Your task to perform on an android device: Go to calendar. Show me events next week Image 0: 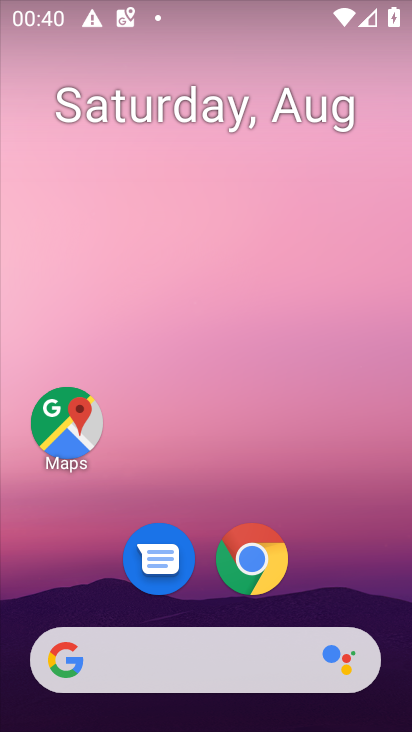
Step 0: drag from (371, 590) to (251, 105)
Your task to perform on an android device: Go to calendar. Show me events next week Image 1: 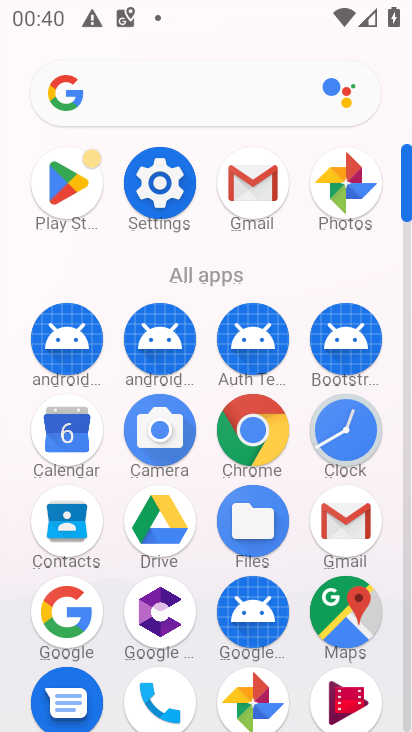
Step 1: click (76, 432)
Your task to perform on an android device: Go to calendar. Show me events next week Image 2: 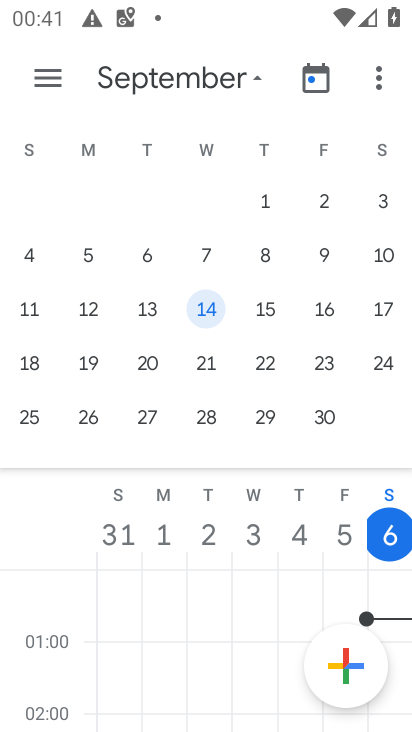
Step 2: click (51, 73)
Your task to perform on an android device: Go to calendar. Show me events next week Image 3: 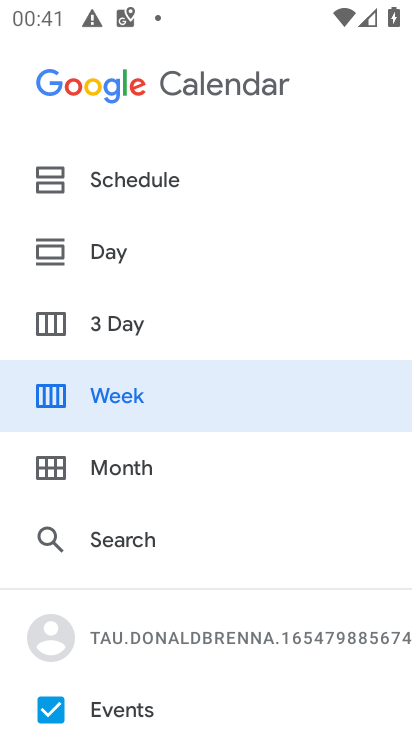
Step 3: click (150, 410)
Your task to perform on an android device: Go to calendar. Show me events next week Image 4: 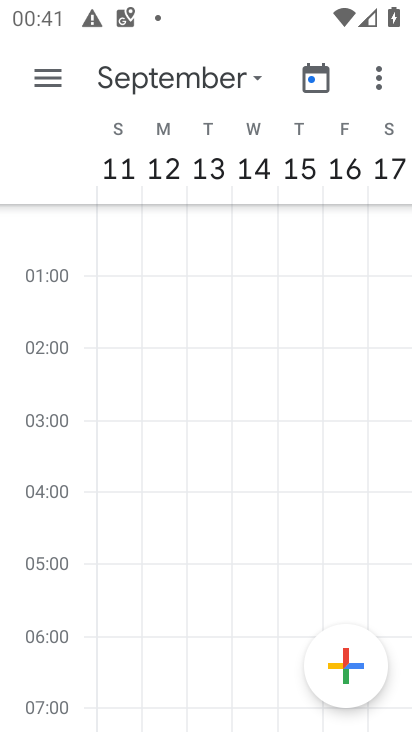
Step 4: click (233, 75)
Your task to perform on an android device: Go to calendar. Show me events next week Image 5: 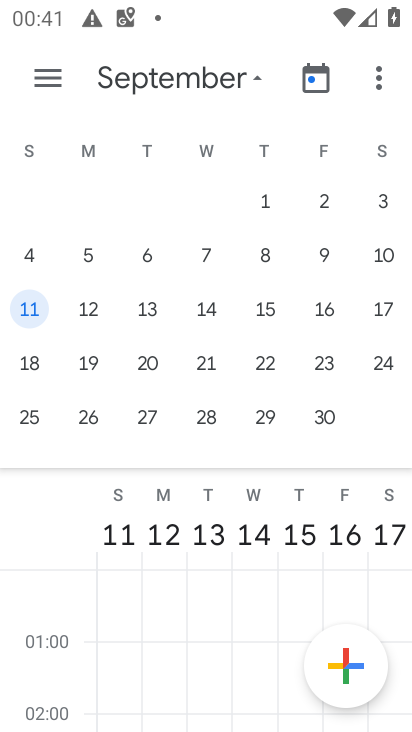
Step 5: drag from (131, 280) to (310, 281)
Your task to perform on an android device: Go to calendar. Show me events next week Image 6: 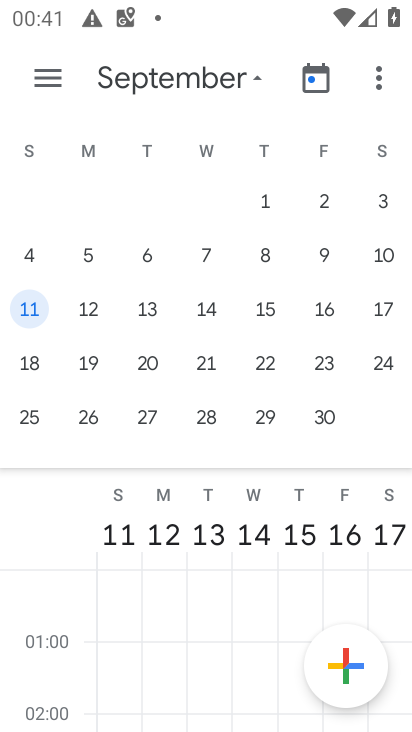
Step 6: drag from (65, 279) to (360, 285)
Your task to perform on an android device: Go to calendar. Show me events next week Image 7: 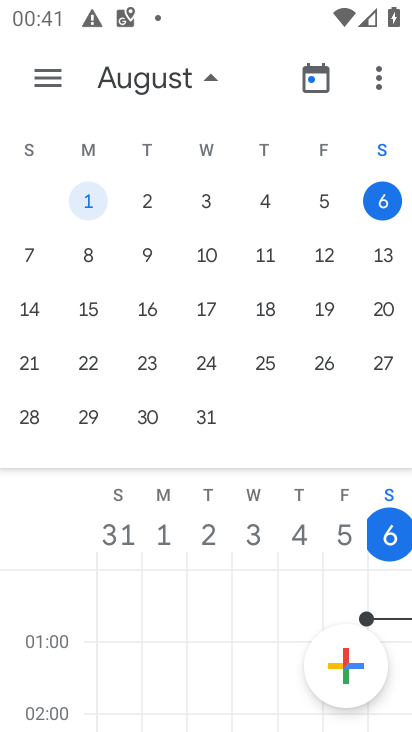
Step 7: click (220, 255)
Your task to perform on an android device: Go to calendar. Show me events next week Image 8: 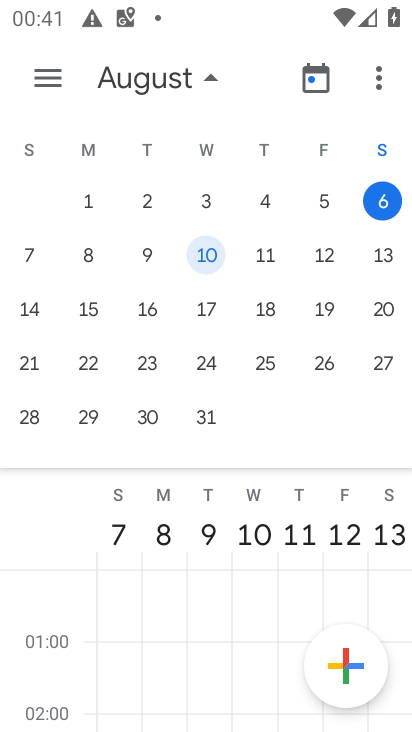
Step 8: task complete